Your task to perform on an android device: Open Android settings Image 0: 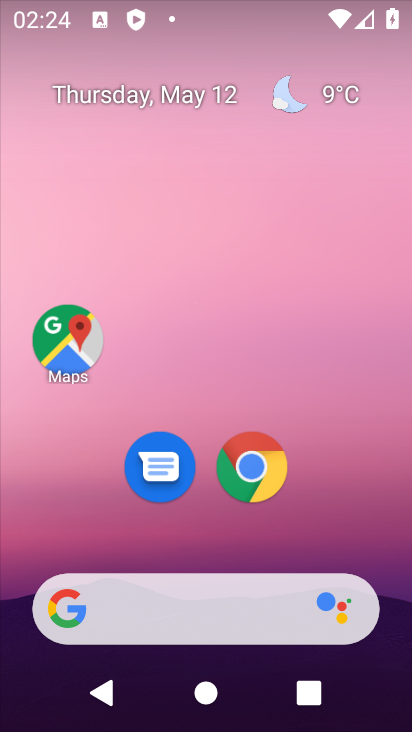
Step 0: drag from (305, 536) to (308, 270)
Your task to perform on an android device: Open Android settings Image 1: 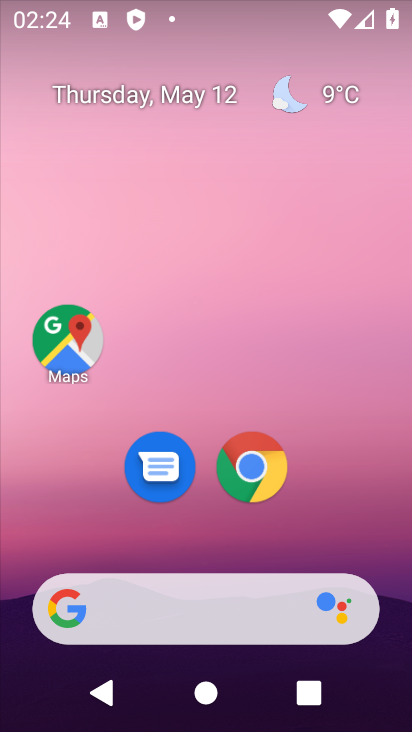
Step 1: drag from (314, 408) to (299, 198)
Your task to perform on an android device: Open Android settings Image 2: 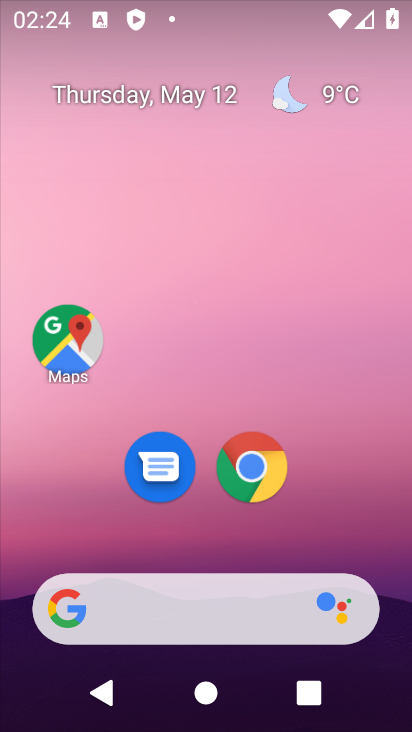
Step 2: drag from (286, 501) to (304, 210)
Your task to perform on an android device: Open Android settings Image 3: 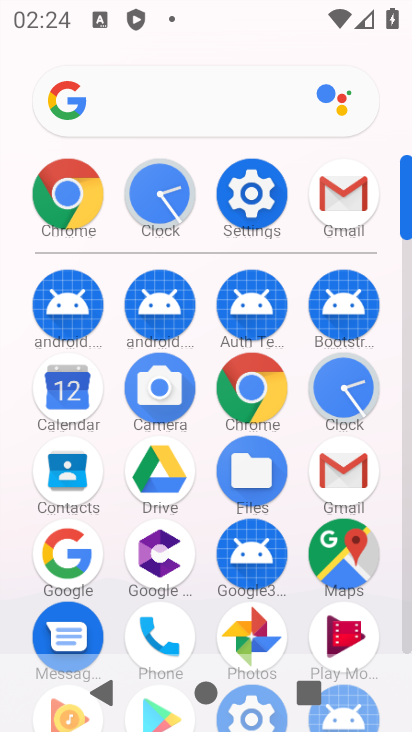
Step 3: click (240, 180)
Your task to perform on an android device: Open Android settings Image 4: 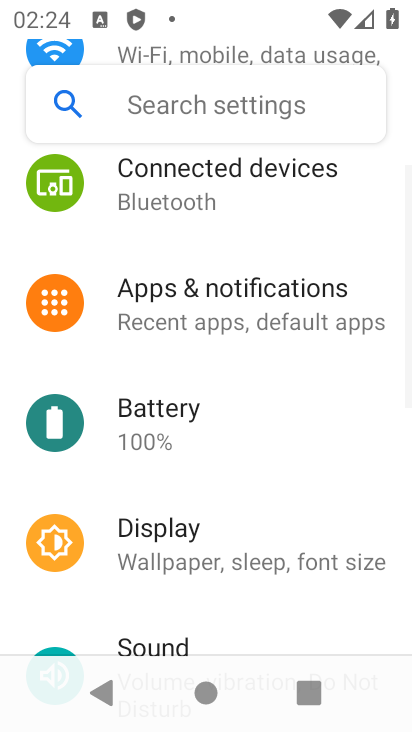
Step 4: task complete